Your task to perform on an android device: Search for Mexican restaurants on Maps Image 0: 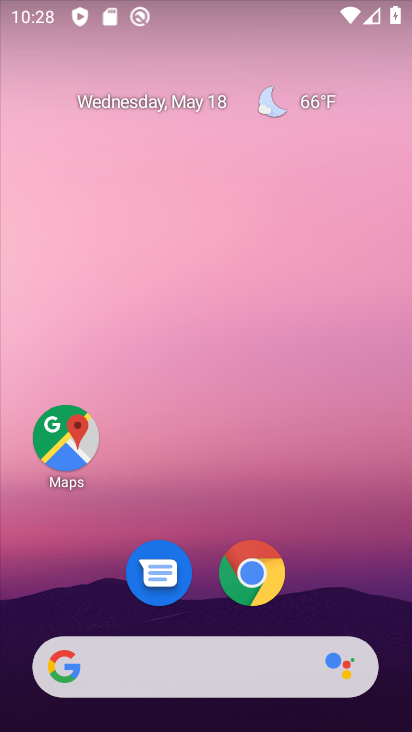
Step 0: drag from (381, 668) to (123, 47)
Your task to perform on an android device: Search for Mexican restaurants on Maps Image 1: 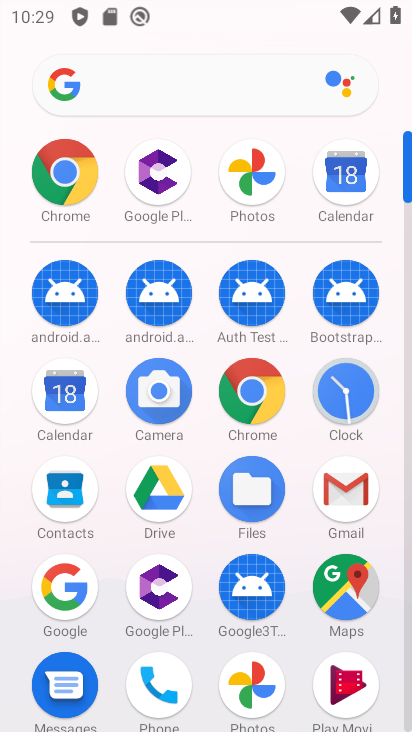
Step 1: click (347, 578)
Your task to perform on an android device: Search for Mexican restaurants on Maps Image 2: 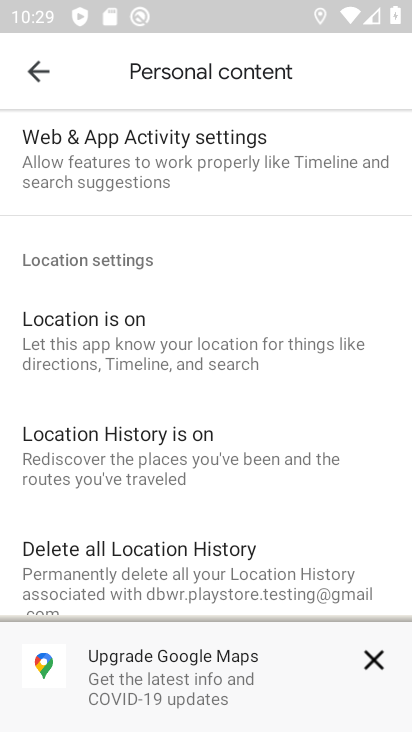
Step 2: click (34, 72)
Your task to perform on an android device: Search for Mexican restaurants on Maps Image 3: 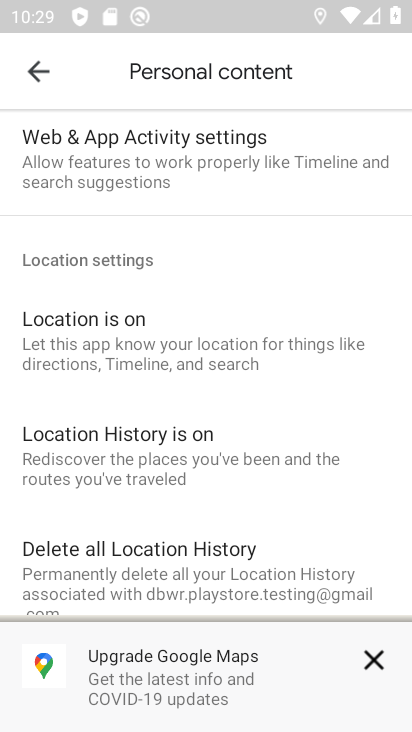
Step 3: click (34, 72)
Your task to perform on an android device: Search for Mexican restaurants on Maps Image 4: 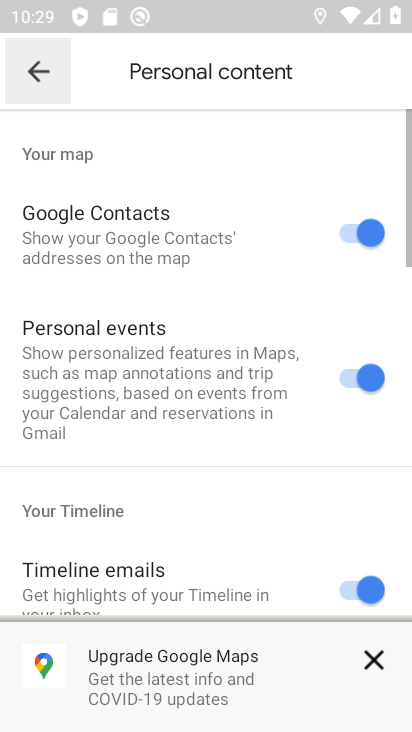
Step 4: click (34, 72)
Your task to perform on an android device: Search for Mexican restaurants on Maps Image 5: 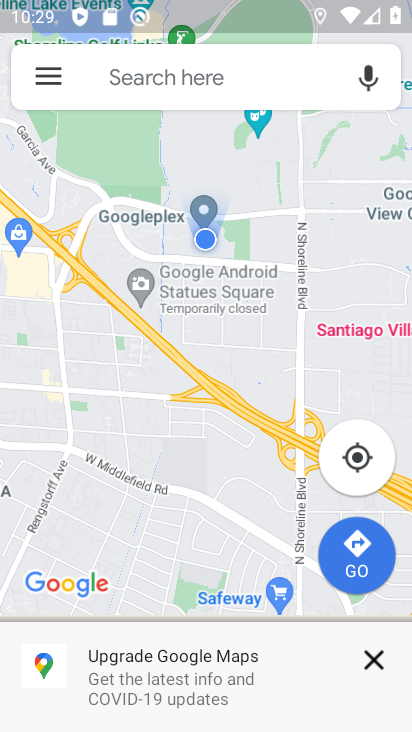
Step 5: click (117, 72)
Your task to perform on an android device: Search for Mexican restaurants on Maps Image 6: 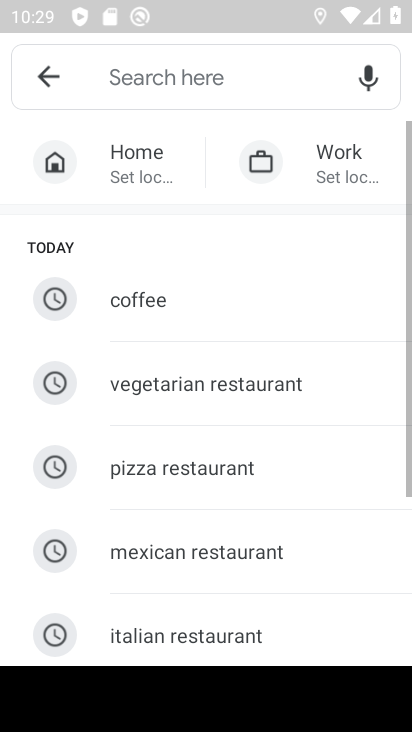
Step 6: click (114, 71)
Your task to perform on an android device: Search for Mexican restaurants on Maps Image 7: 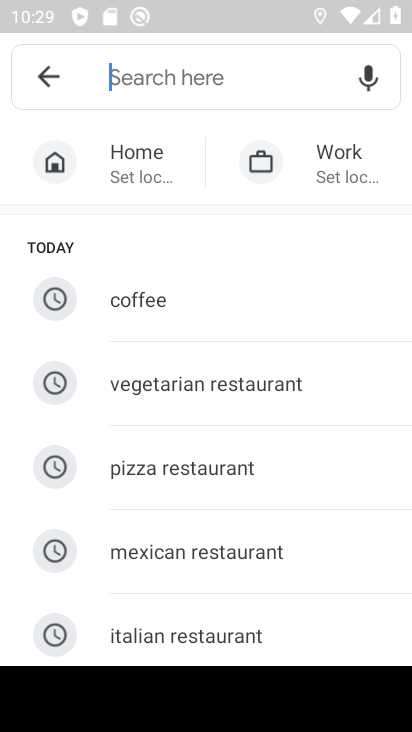
Step 7: click (113, 71)
Your task to perform on an android device: Search for Mexican restaurants on Maps Image 8: 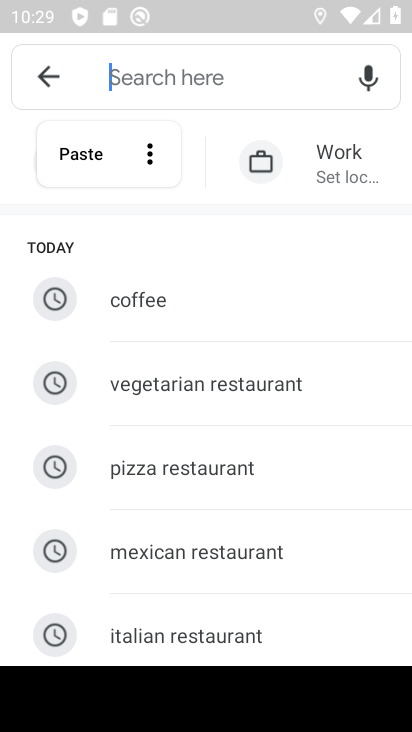
Step 8: click (164, 545)
Your task to perform on an android device: Search for Mexican restaurants on Maps Image 9: 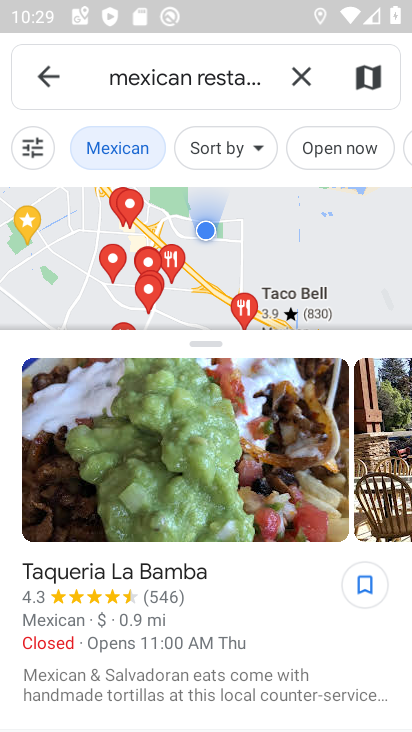
Step 9: click (153, 553)
Your task to perform on an android device: Search for Mexican restaurants on Maps Image 10: 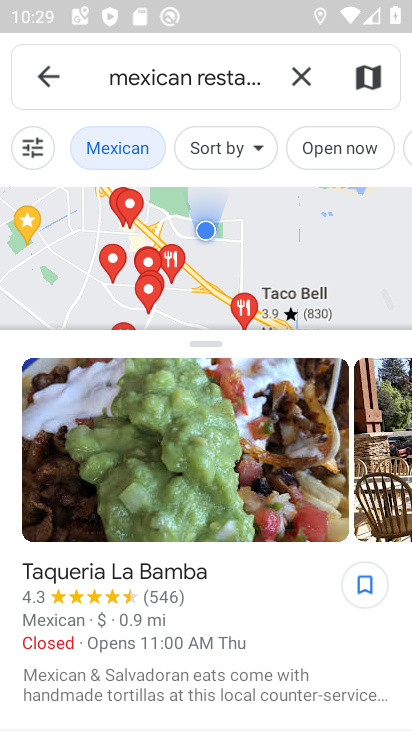
Step 10: task complete